Your task to perform on an android device: What is the recent news? Image 0: 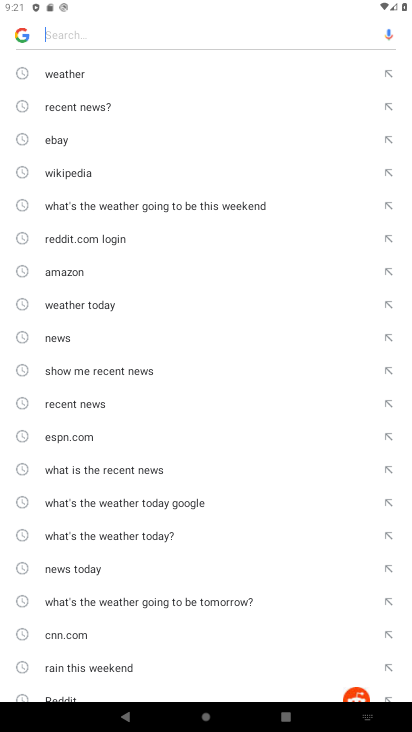
Step 0: click (135, 108)
Your task to perform on an android device: What is the recent news? Image 1: 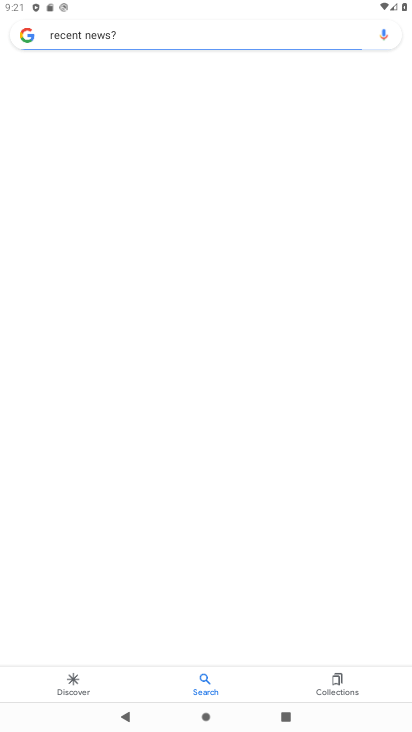
Step 1: task complete